Your task to perform on an android device: What's the weather today? Image 0: 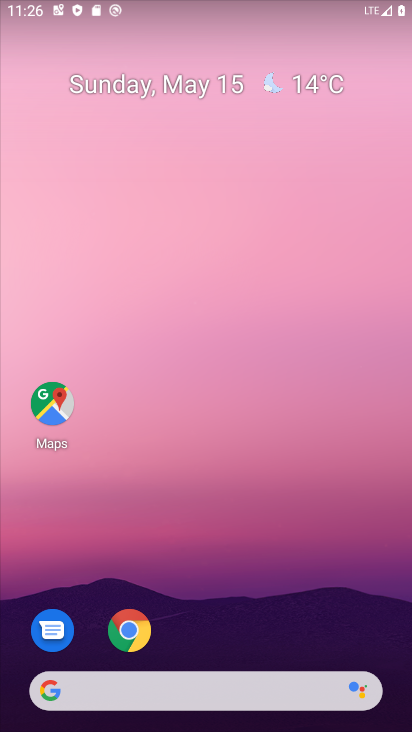
Step 0: click (180, 699)
Your task to perform on an android device: What's the weather today? Image 1: 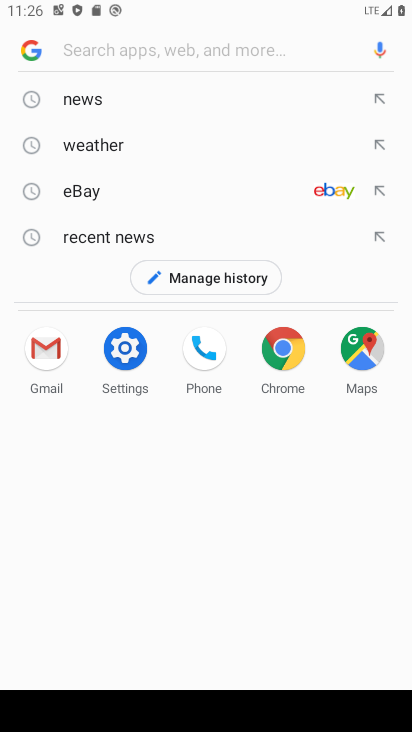
Step 1: click (92, 136)
Your task to perform on an android device: What's the weather today? Image 2: 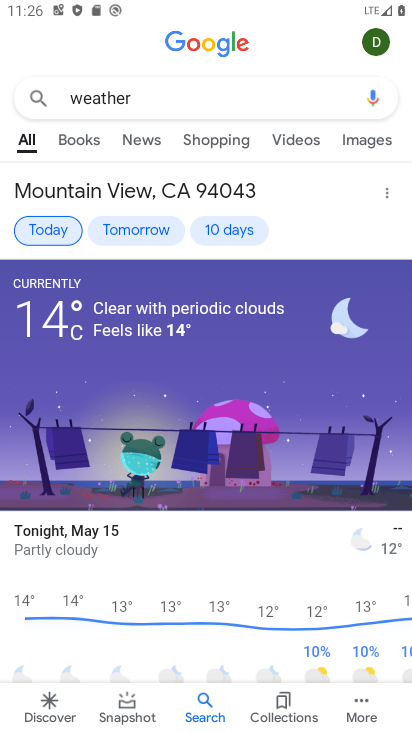
Step 2: task complete